Your task to perform on an android device: search for starred emails in the gmail app Image 0: 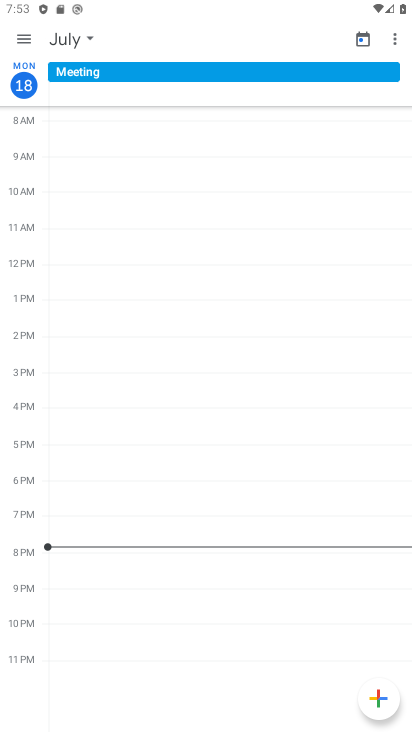
Step 0: press home button
Your task to perform on an android device: search for starred emails in the gmail app Image 1: 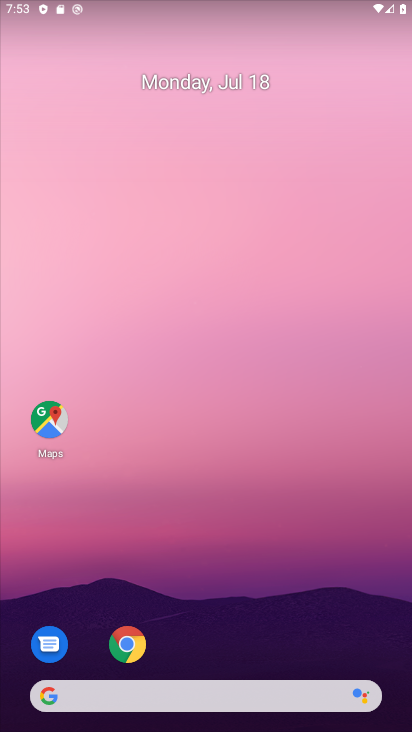
Step 1: drag from (214, 651) to (264, 101)
Your task to perform on an android device: search for starred emails in the gmail app Image 2: 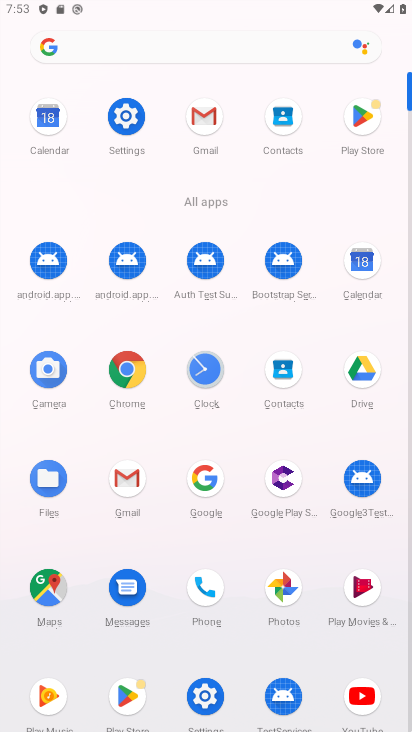
Step 2: click (120, 478)
Your task to perform on an android device: search for starred emails in the gmail app Image 3: 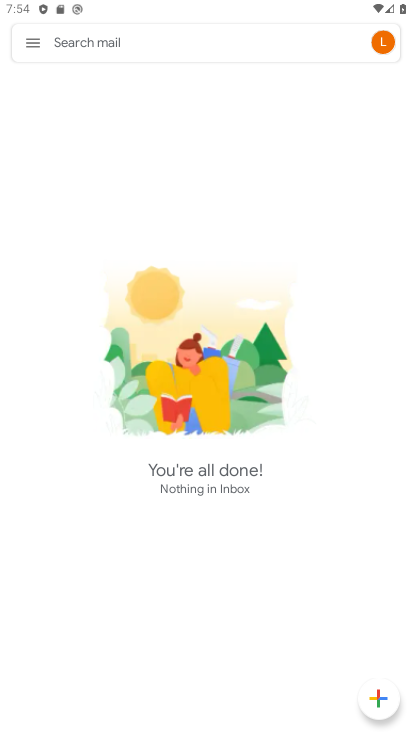
Step 3: click (28, 45)
Your task to perform on an android device: search for starred emails in the gmail app Image 4: 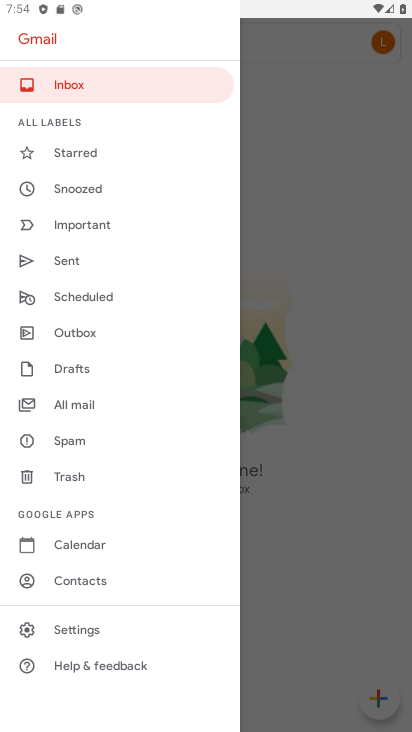
Step 4: click (85, 152)
Your task to perform on an android device: search for starred emails in the gmail app Image 5: 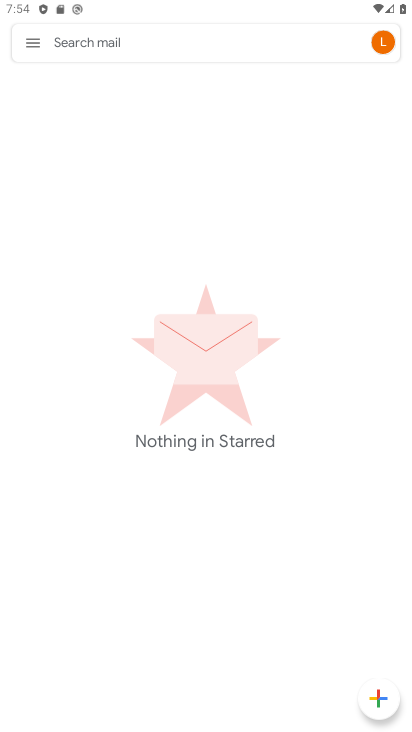
Step 5: task complete